Your task to perform on an android device: Go to notification settings Image 0: 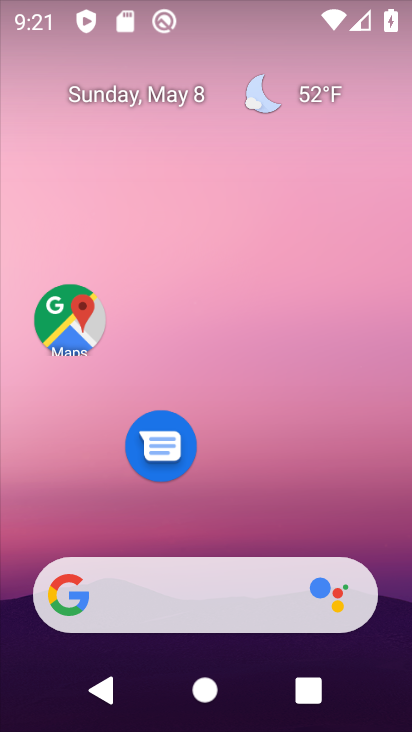
Step 0: drag from (328, 521) to (288, 142)
Your task to perform on an android device: Go to notification settings Image 1: 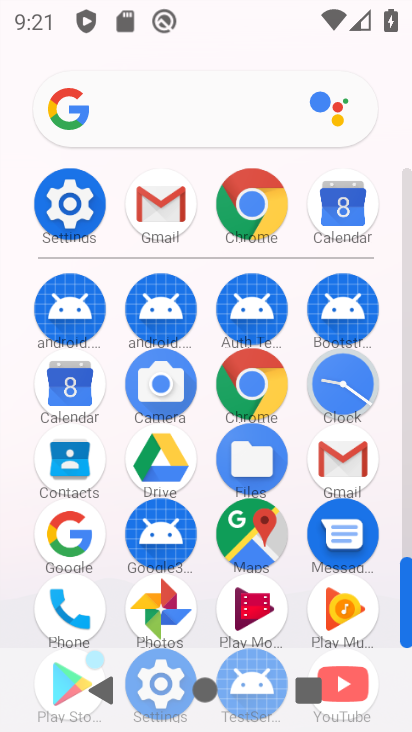
Step 1: drag from (403, 619) to (276, 721)
Your task to perform on an android device: Go to notification settings Image 2: 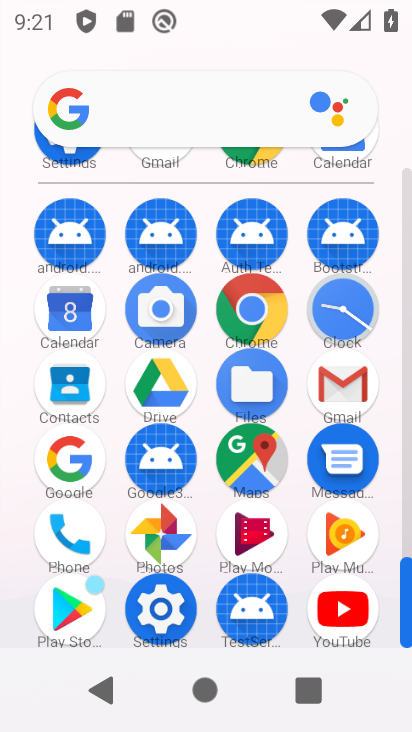
Step 2: click (185, 613)
Your task to perform on an android device: Go to notification settings Image 3: 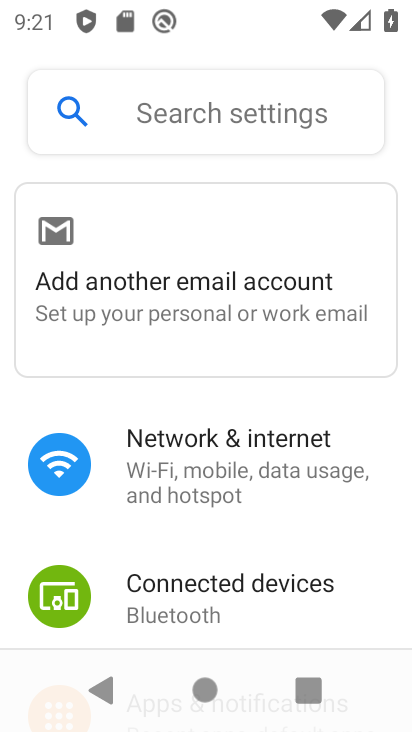
Step 3: drag from (224, 578) to (228, 167)
Your task to perform on an android device: Go to notification settings Image 4: 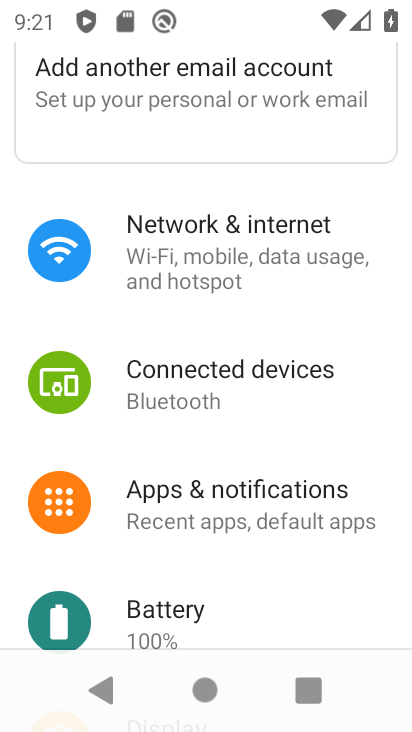
Step 4: click (191, 512)
Your task to perform on an android device: Go to notification settings Image 5: 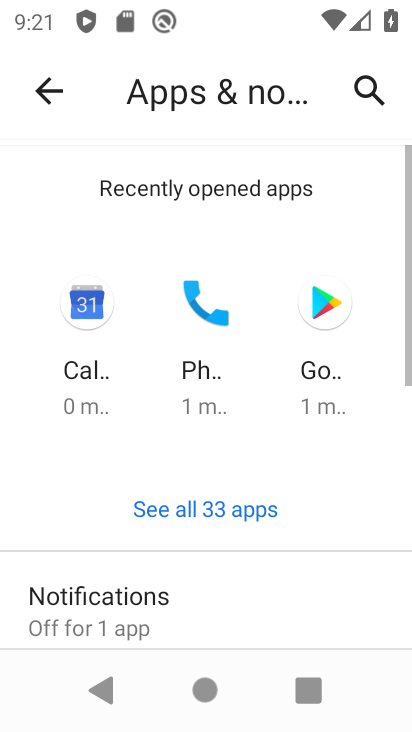
Step 5: task complete